Your task to perform on an android device: Open Youtube and go to "Your channel" Image 0: 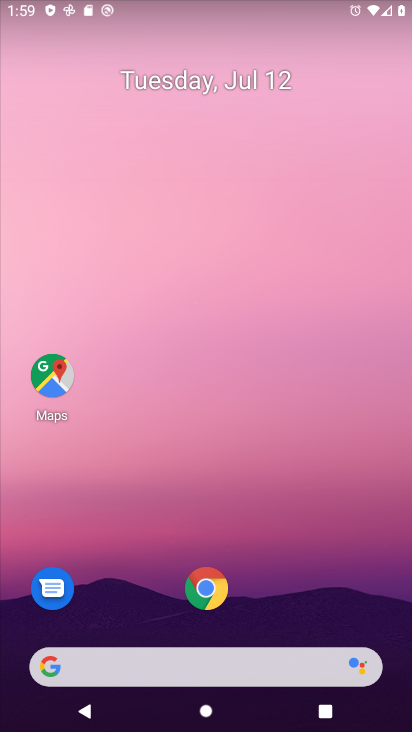
Step 0: drag from (212, 676) to (353, 154)
Your task to perform on an android device: Open Youtube and go to "Your channel" Image 1: 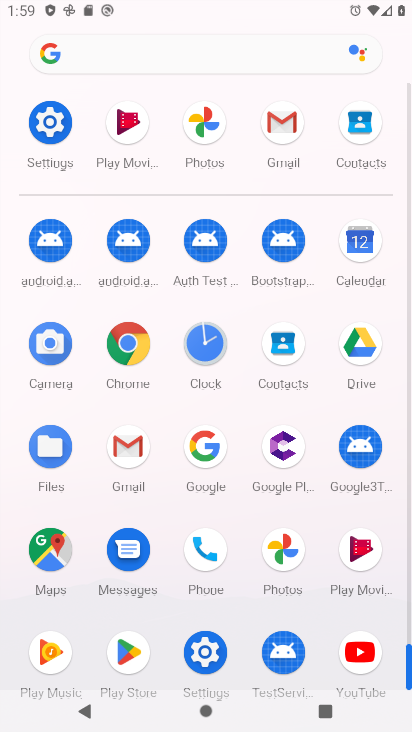
Step 1: click (361, 643)
Your task to perform on an android device: Open Youtube and go to "Your channel" Image 2: 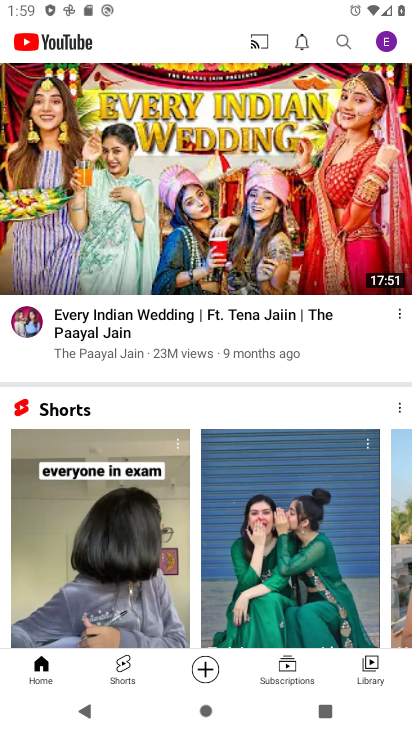
Step 2: click (385, 39)
Your task to perform on an android device: Open Youtube and go to "Your channel" Image 3: 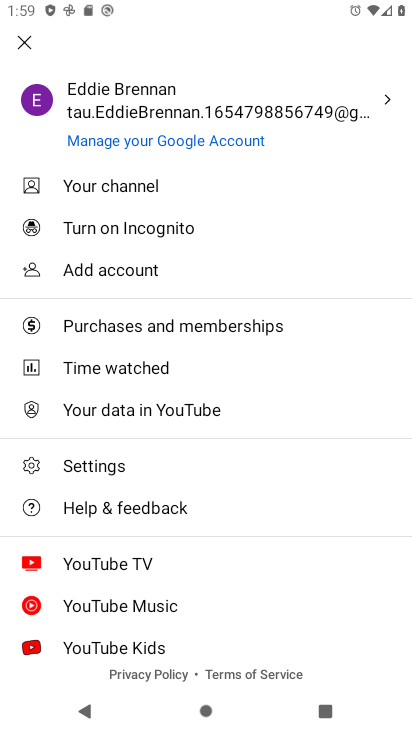
Step 3: click (137, 186)
Your task to perform on an android device: Open Youtube and go to "Your channel" Image 4: 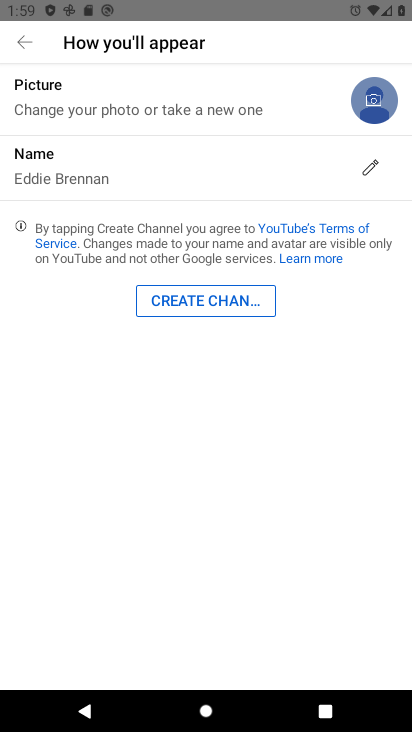
Step 4: task complete